Your task to perform on an android device: turn on the 24-hour format for clock Image 0: 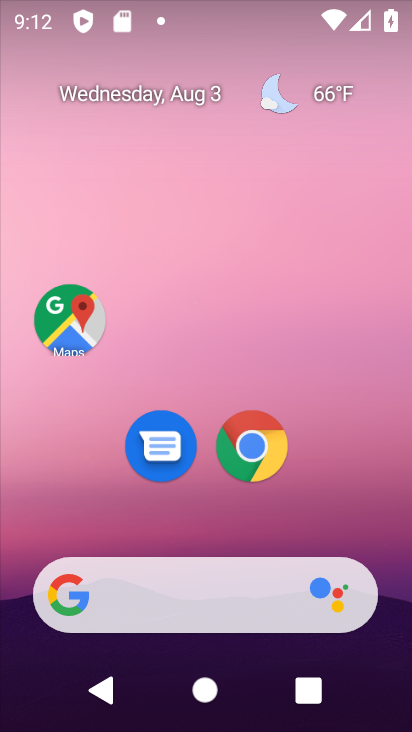
Step 0: drag from (385, 717) to (296, 140)
Your task to perform on an android device: turn on the 24-hour format for clock Image 1: 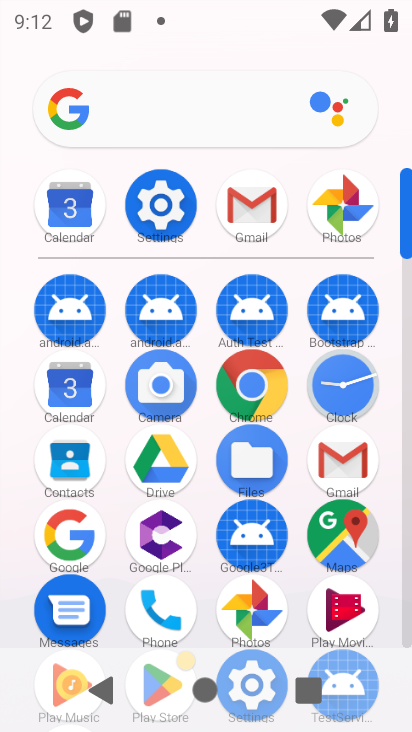
Step 1: click (333, 403)
Your task to perform on an android device: turn on the 24-hour format for clock Image 2: 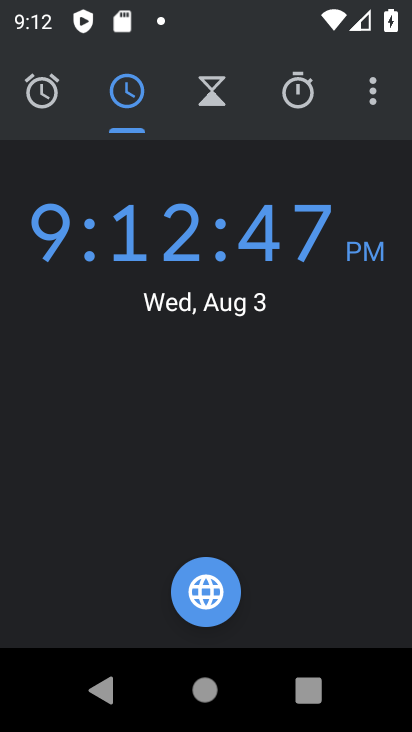
Step 2: click (371, 89)
Your task to perform on an android device: turn on the 24-hour format for clock Image 3: 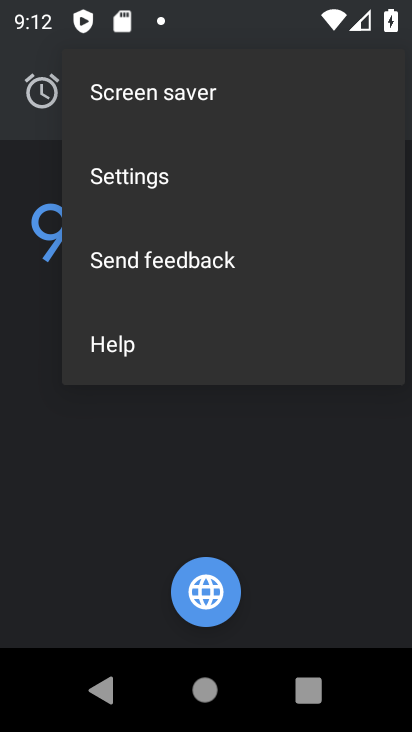
Step 3: click (110, 173)
Your task to perform on an android device: turn on the 24-hour format for clock Image 4: 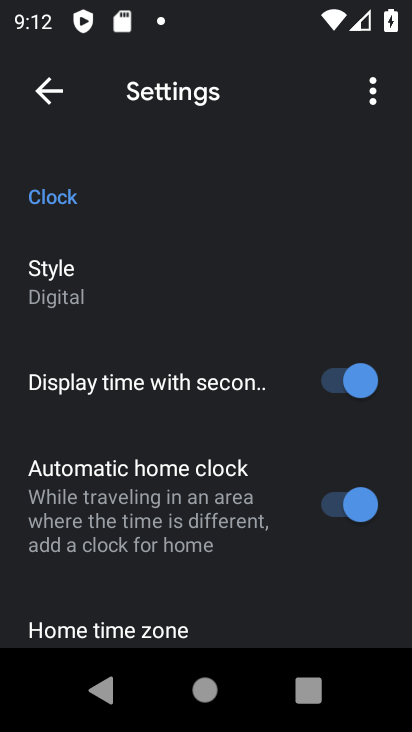
Step 4: drag from (185, 642) to (194, 296)
Your task to perform on an android device: turn on the 24-hour format for clock Image 5: 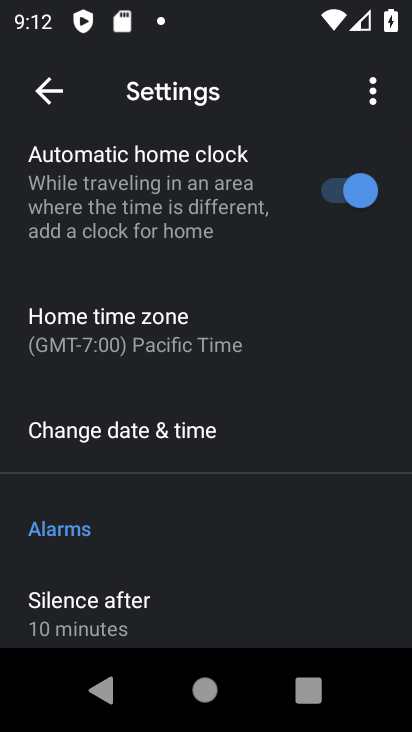
Step 5: click (102, 423)
Your task to perform on an android device: turn on the 24-hour format for clock Image 6: 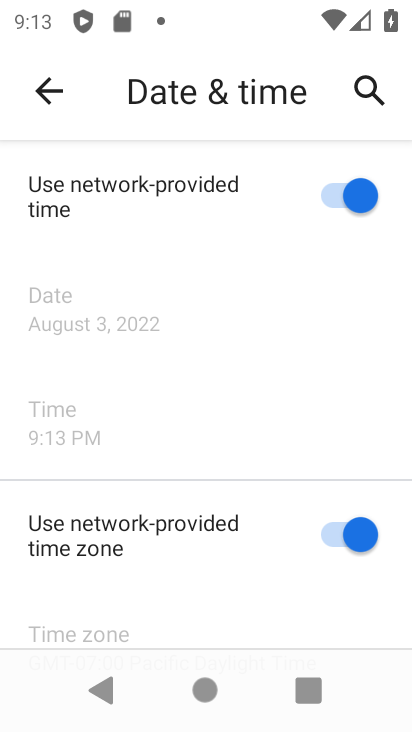
Step 6: drag from (286, 586) to (233, 259)
Your task to perform on an android device: turn on the 24-hour format for clock Image 7: 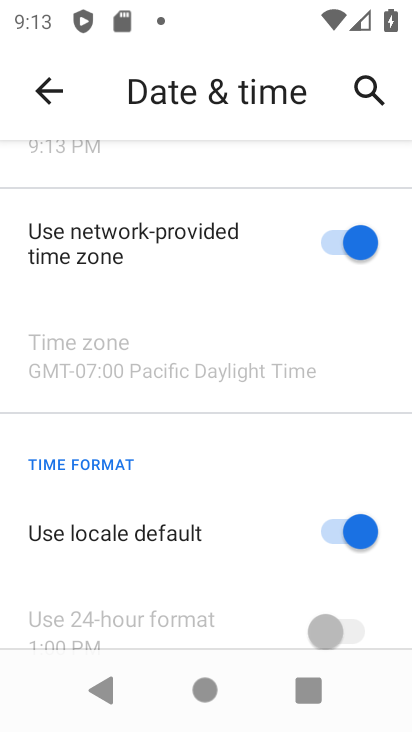
Step 7: drag from (206, 614) to (211, 322)
Your task to perform on an android device: turn on the 24-hour format for clock Image 8: 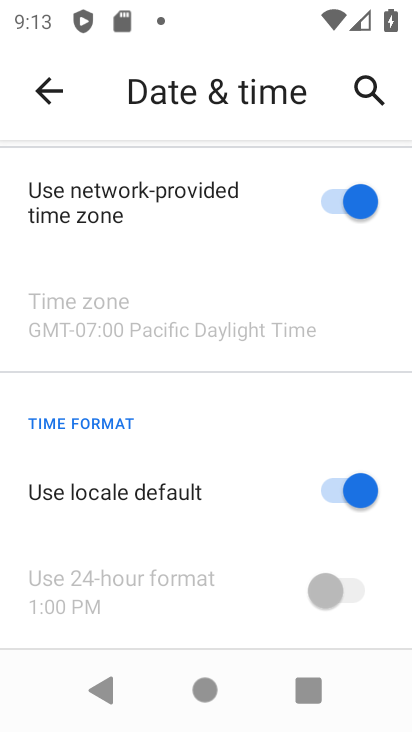
Step 8: click (324, 495)
Your task to perform on an android device: turn on the 24-hour format for clock Image 9: 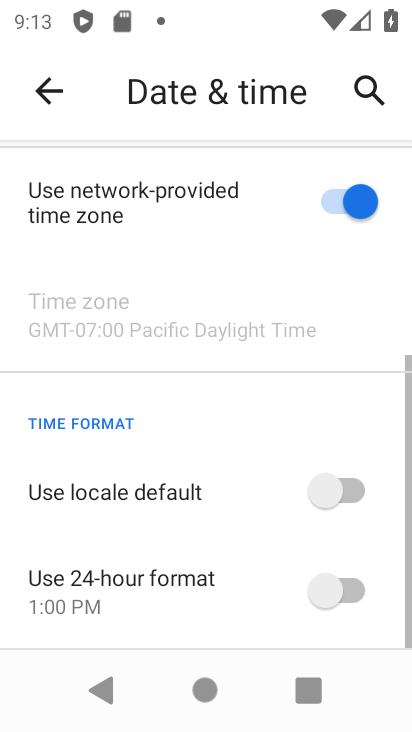
Step 9: click (339, 589)
Your task to perform on an android device: turn on the 24-hour format for clock Image 10: 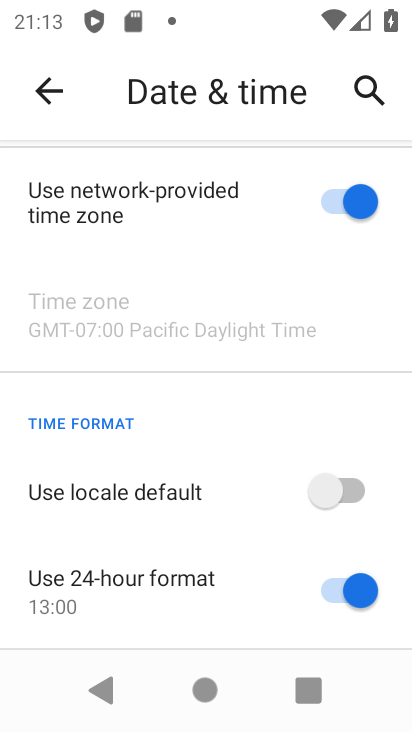
Step 10: task complete